Your task to perform on an android device: Search for Italian restaurants on Maps Image 0: 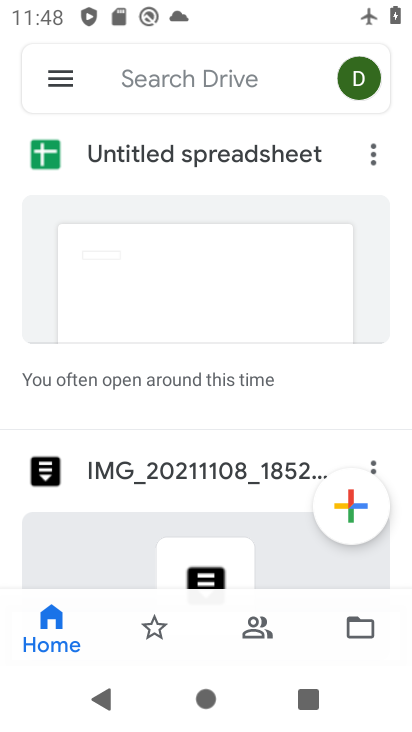
Step 0: press home button
Your task to perform on an android device: Search for Italian restaurants on Maps Image 1: 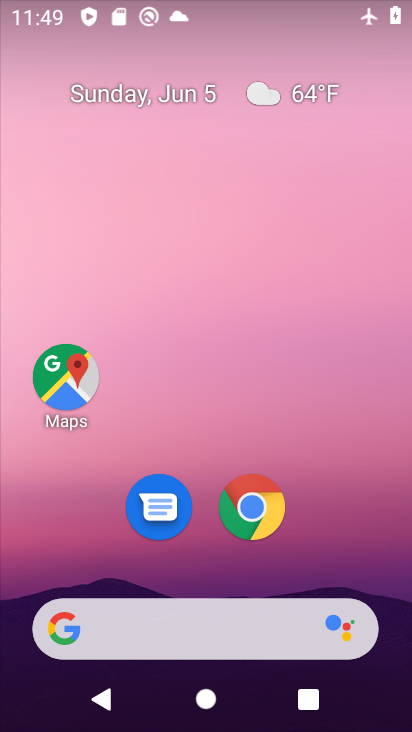
Step 1: click (68, 379)
Your task to perform on an android device: Search for Italian restaurants on Maps Image 2: 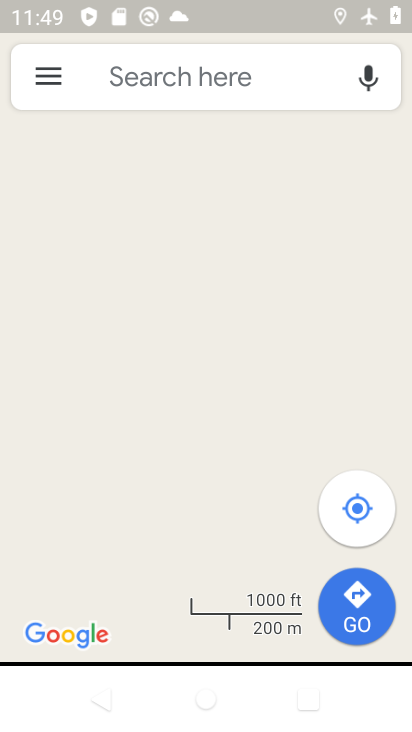
Step 2: click (218, 75)
Your task to perform on an android device: Search for Italian restaurants on Maps Image 3: 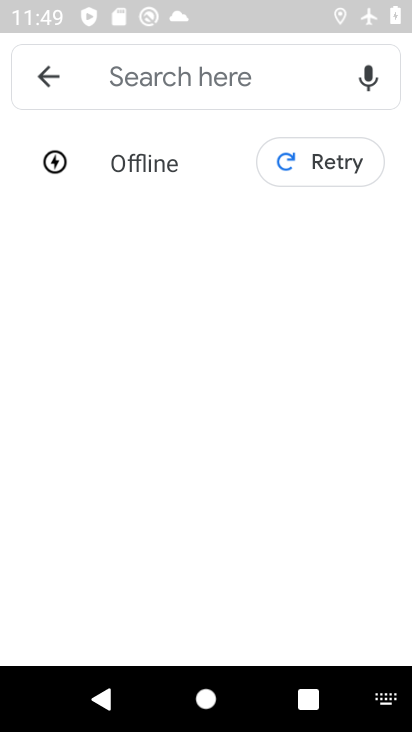
Step 3: type "Italian restaurants"
Your task to perform on an android device: Search for Italian restaurants on Maps Image 4: 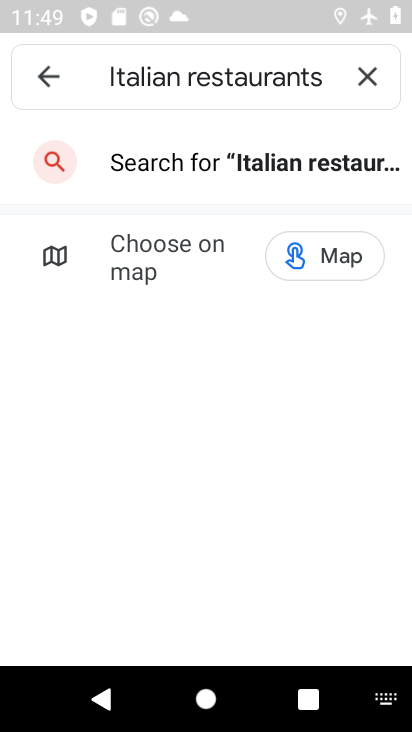
Step 4: press enter
Your task to perform on an android device: Search for Italian restaurants on Maps Image 5: 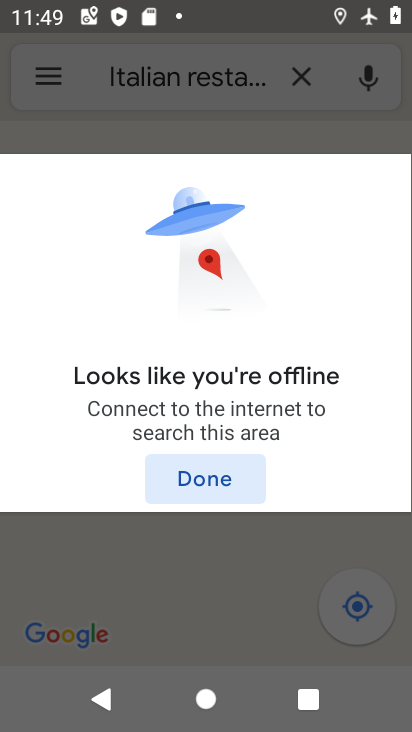
Step 5: task complete